Your task to perform on an android device: Go to battery settings Image 0: 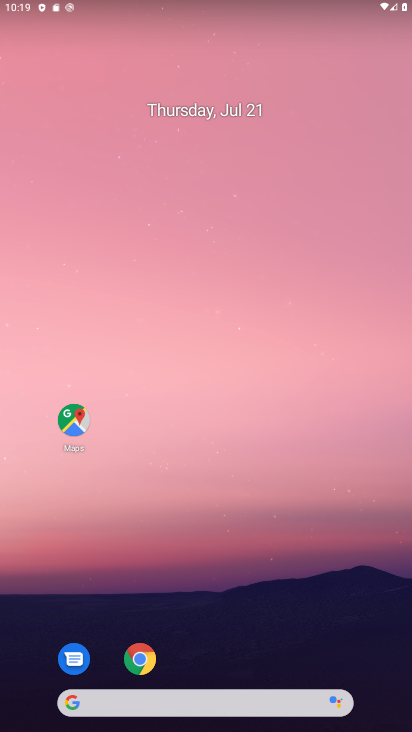
Step 0: drag from (193, 658) to (124, 175)
Your task to perform on an android device: Go to battery settings Image 1: 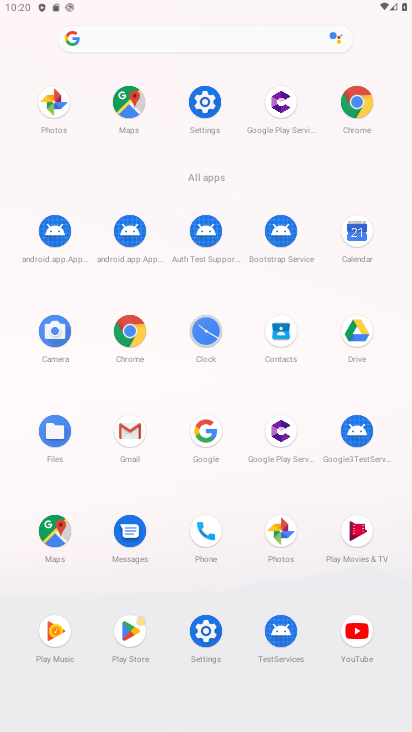
Step 1: click (210, 101)
Your task to perform on an android device: Go to battery settings Image 2: 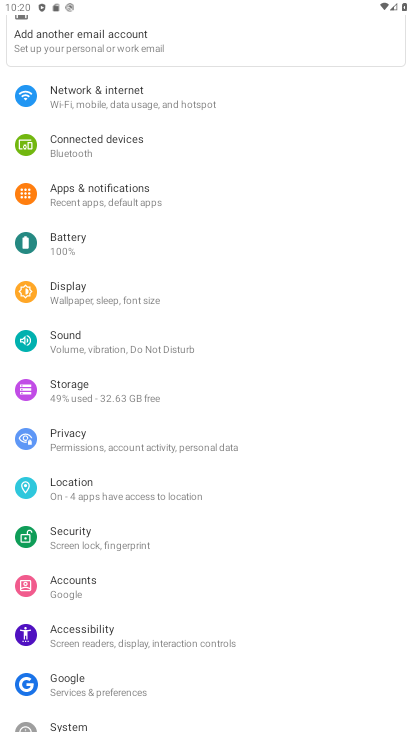
Step 2: click (61, 252)
Your task to perform on an android device: Go to battery settings Image 3: 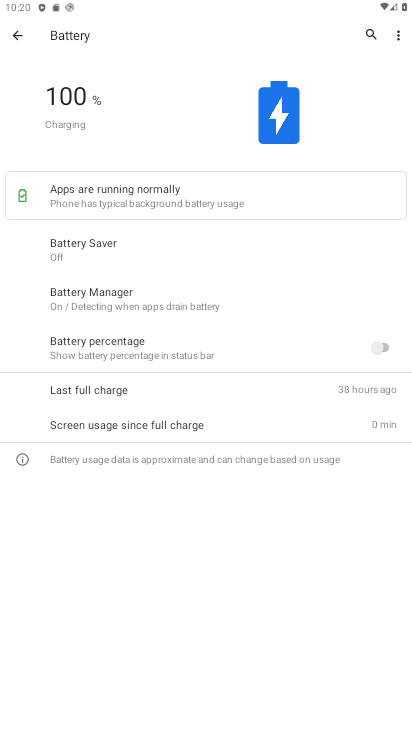
Step 3: task complete